Your task to perform on an android device: turn off improve location accuracy Image 0: 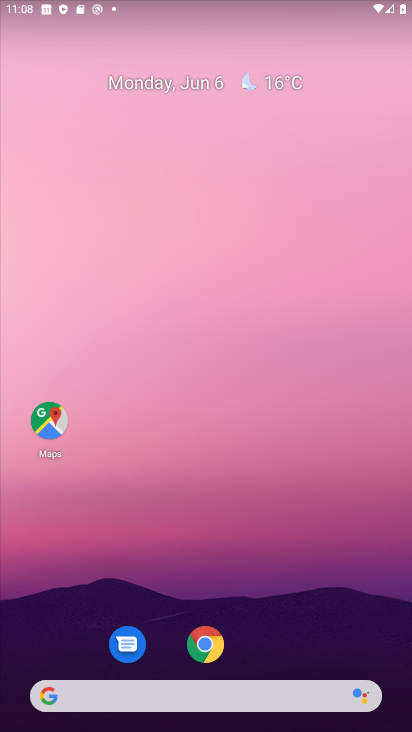
Step 0: drag from (262, 647) to (213, 227)
Your task to perform on an android device: turn off improve location accuracy Image 1: 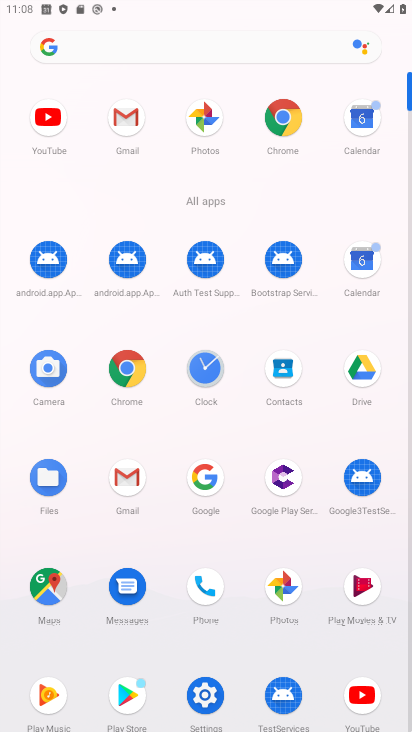
Step 1: click (213, 697)
Your task to perform on an android device: turn off improve location accuracy Image 2: 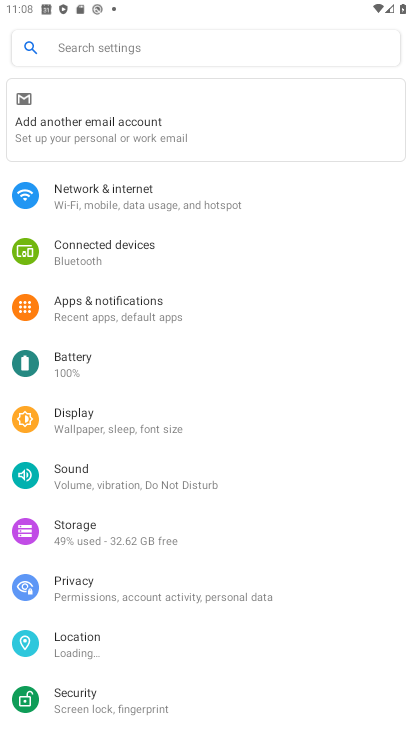
Step 2: click (142, 641)
Your task to perform on an android device: turn off improve location accuracy Image 3: 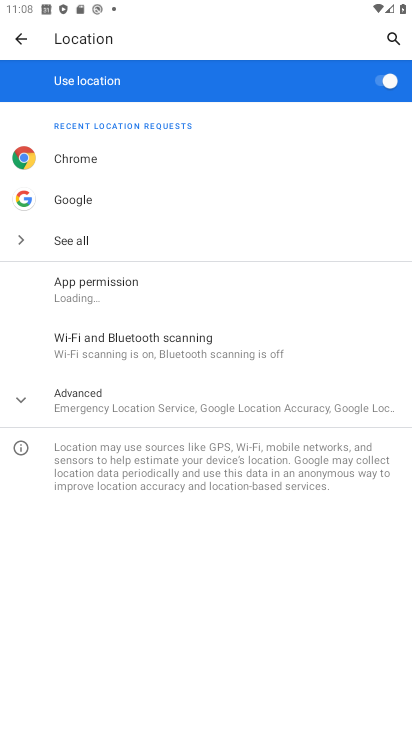
Step 3: click (169, 408)
Your task to perform on an android device: turn off improve location accuracy Image 4: 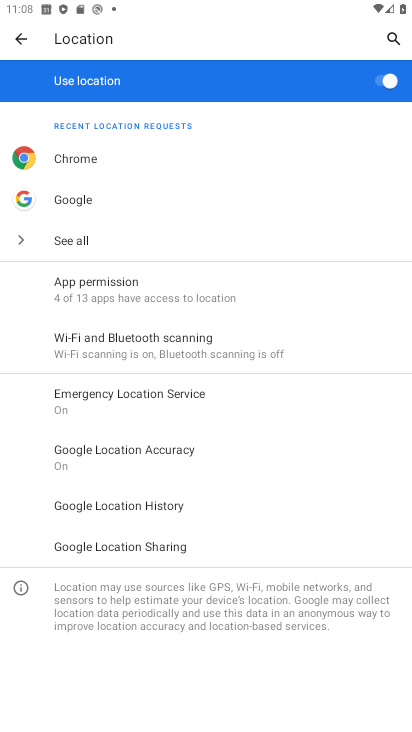
Step 4: click (197, 461)
Your task to perform on an android device: turn off improve location accuracy Image 5: 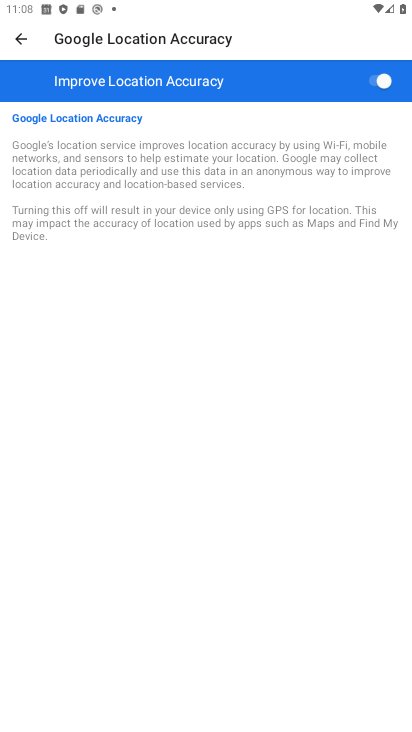
Step 5: click (376, 97)
Your task to perform on an android device: turn off improve location accuracy Image 6: 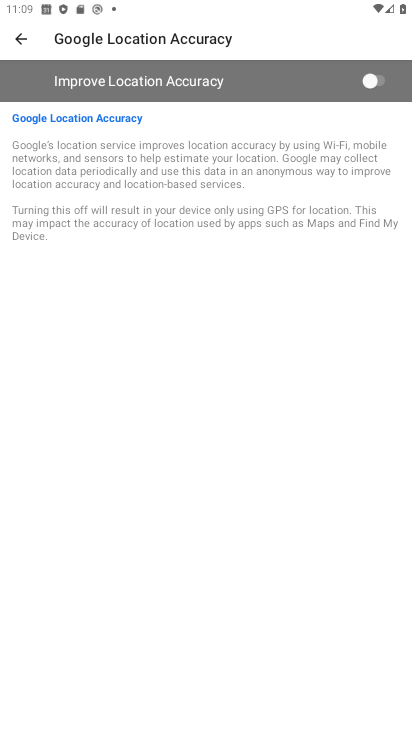
Step 6: task complete